Your task to perform on an android device: Open sound settings Image 0: 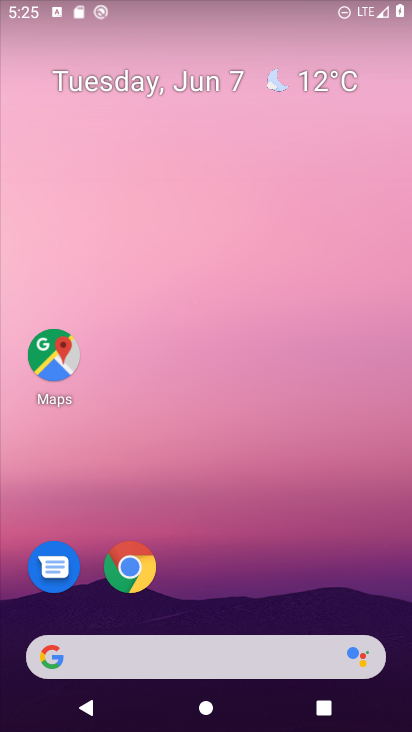
Step 0: drag from (351, 665) to (382, 31)
Your task to perform on an android device: Open sound settings Image 1: 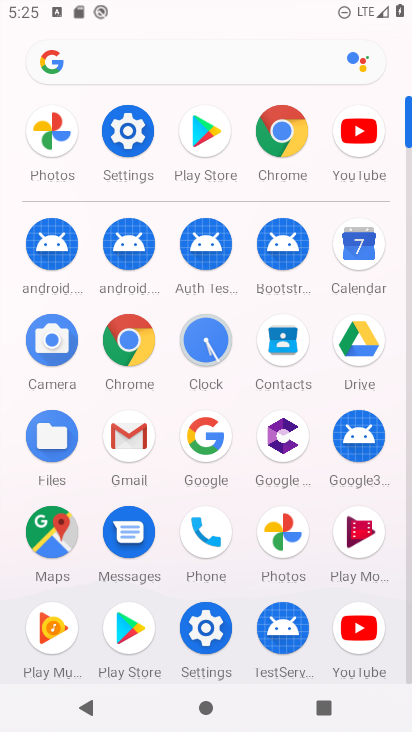
Step 1: click (121, 126)
Your task to perform on an android device: Open sound settings Image 2: 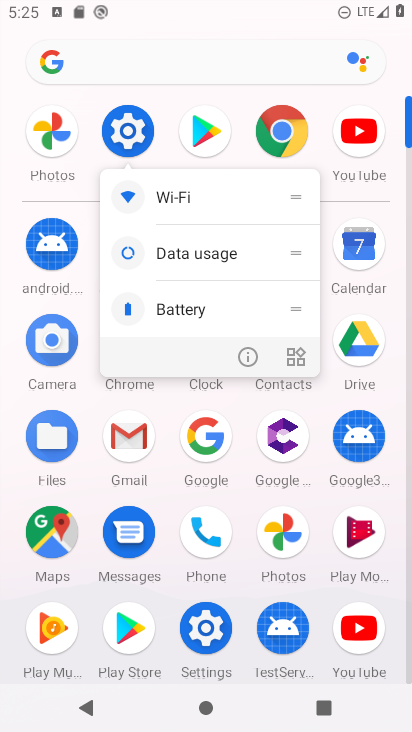
Step 2: click (108, 125)
Your task to perform on an android device: Open sound settings Image 3: 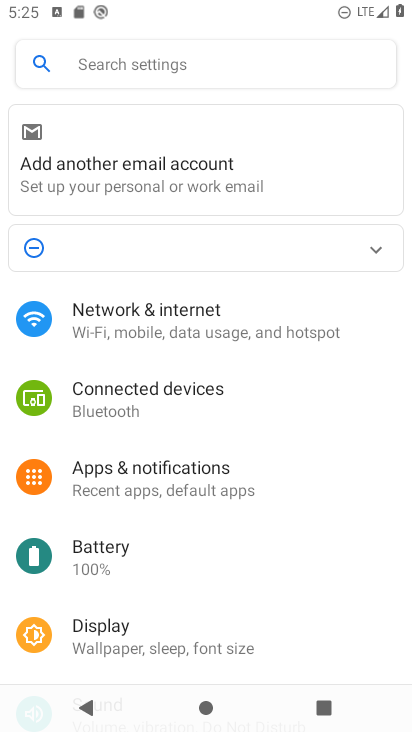
Step 3: drag from (127, 641) to (184, 160)
Your task to perform on an android device: Open sound settings Image 4: 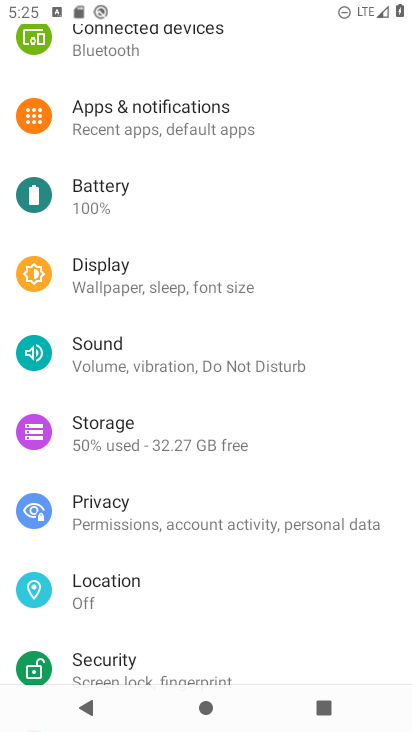
Step 4: click (125, 348)
Your task to perform on an android device: Open sound settings Image 5: 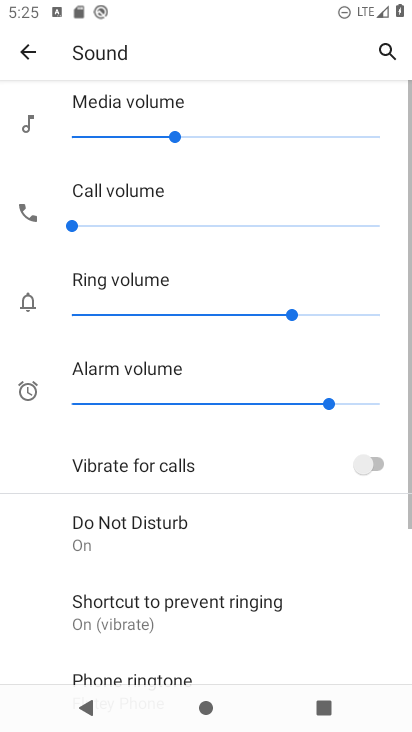
Step 5: task complete